Your task to perform on an android device: see sites visited before in the chrome app Image 0: 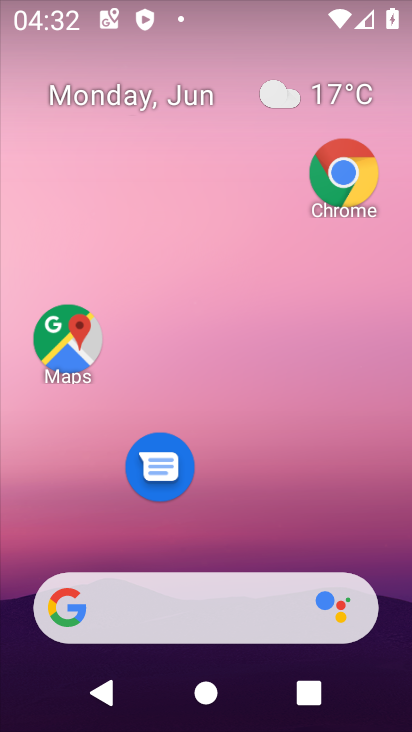
Step 0: click (355, 176)
Your task to perform on an android device: see sites visited before in the chrome app Image 1: 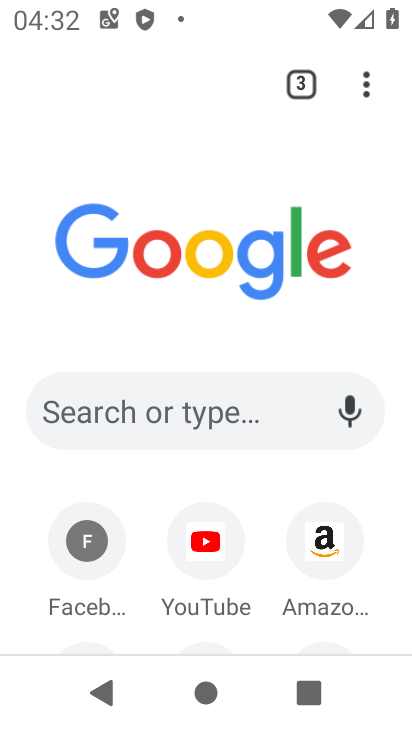
Step 1: click (379, 96)
Your task to perform on an android device: see sites visited before in the chrome app Image 2: 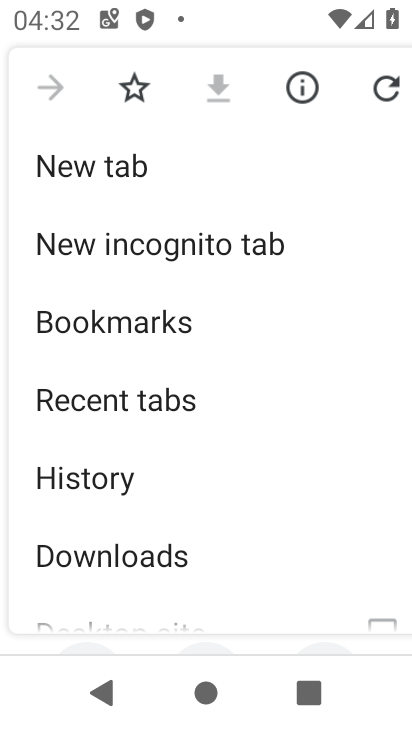
Step 2: drag from (166, 529) to (169, 412)
Your task to perform on an android device: see sites visited before in the chrome app Image 3: 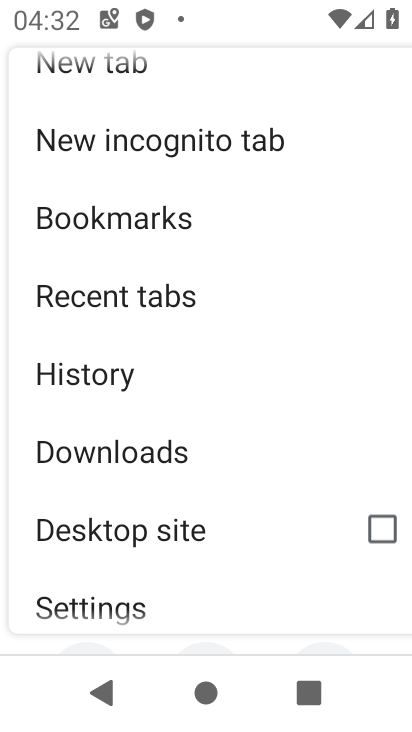
Step 3: click (95, 451)
Your task to perform on an android device: see sites visited before in the chrome app Image 4: 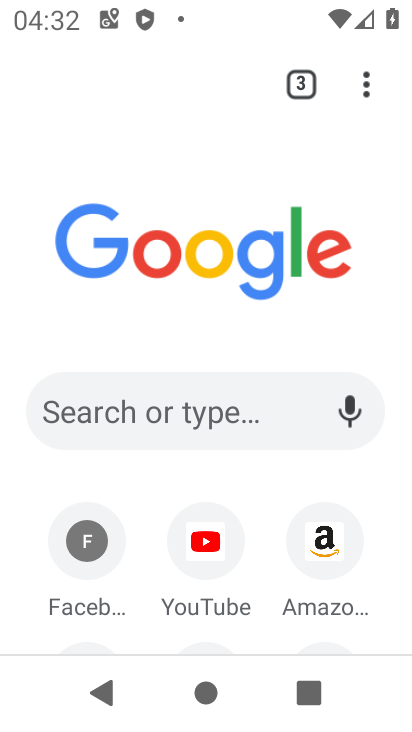
Step 4: click (89, 392)
Your task to perform on an android device: see sites visited before in the chrome app Image 5: 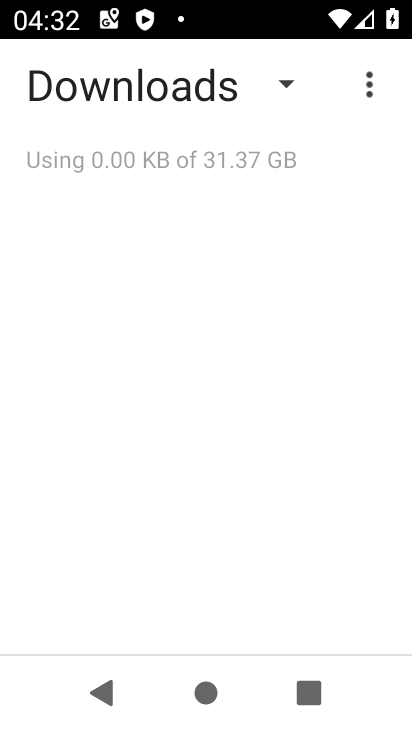
Step 5: press back button
Your task to perform on an android device: see sites visited before in the chrome app Image 6: 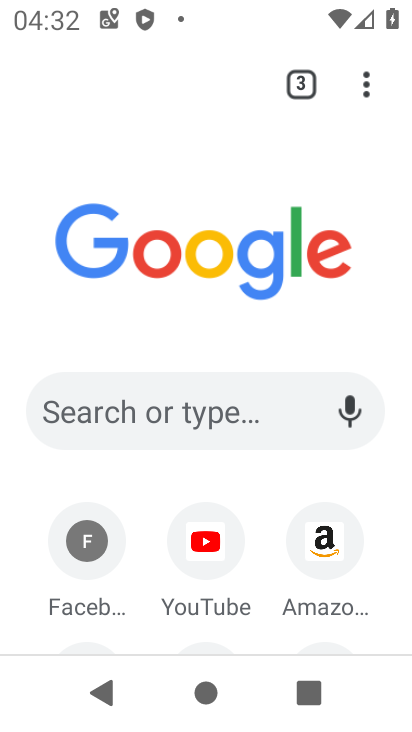
Step 6: click (370, 86)
Your task to perform on an android device: see sites visited before in the chrome app Image 7: 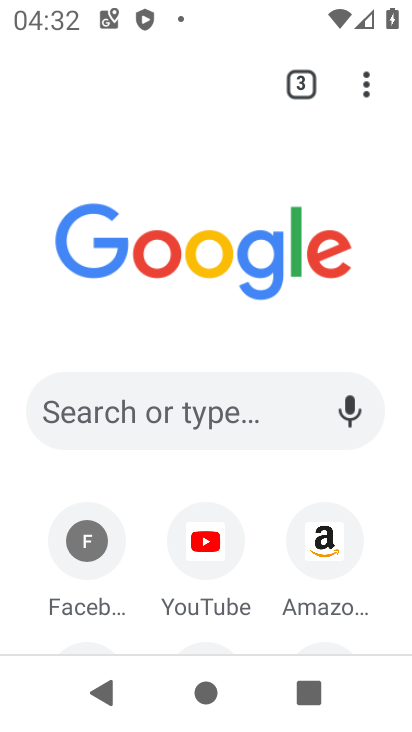
Step 7: click (370, 86)
Your task to perform on an android device: see sites visited before in the chrome app Image 8: 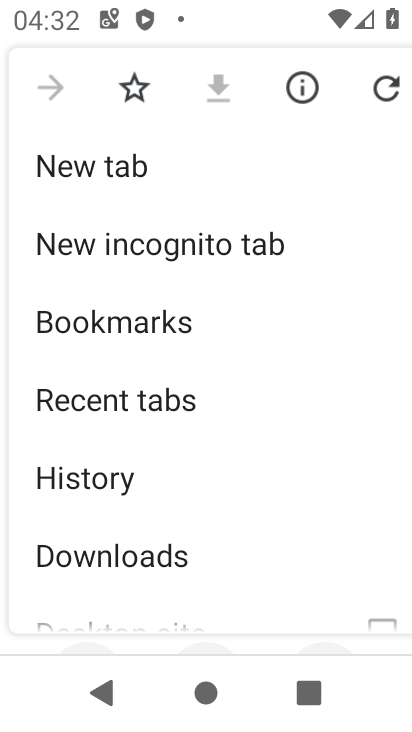
Step 8: click (118, 481)
Your task to perform on an android device: see sites visited before in the chrome app Image 9: 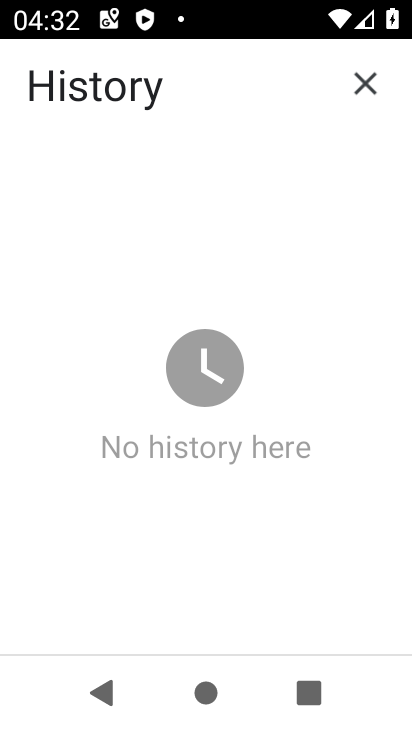
Step 9: task complete